Your task to perform on an android device: refresh tabs in the chrome app Image 0: 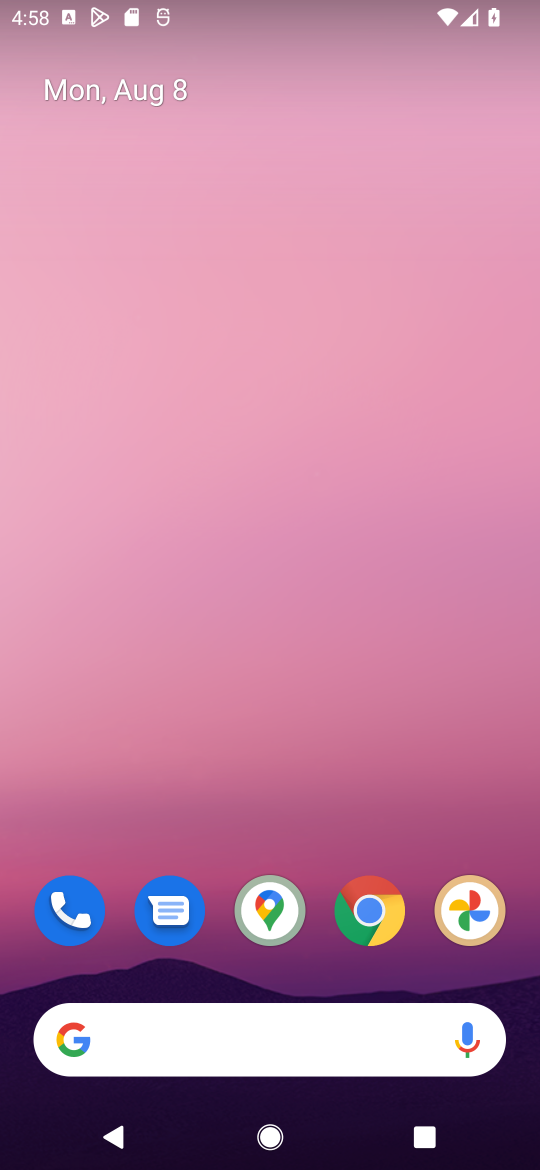
Step 0: click (380, 935)
Your task to perform on an android device: refresh tabs in the chrome app Image 1: 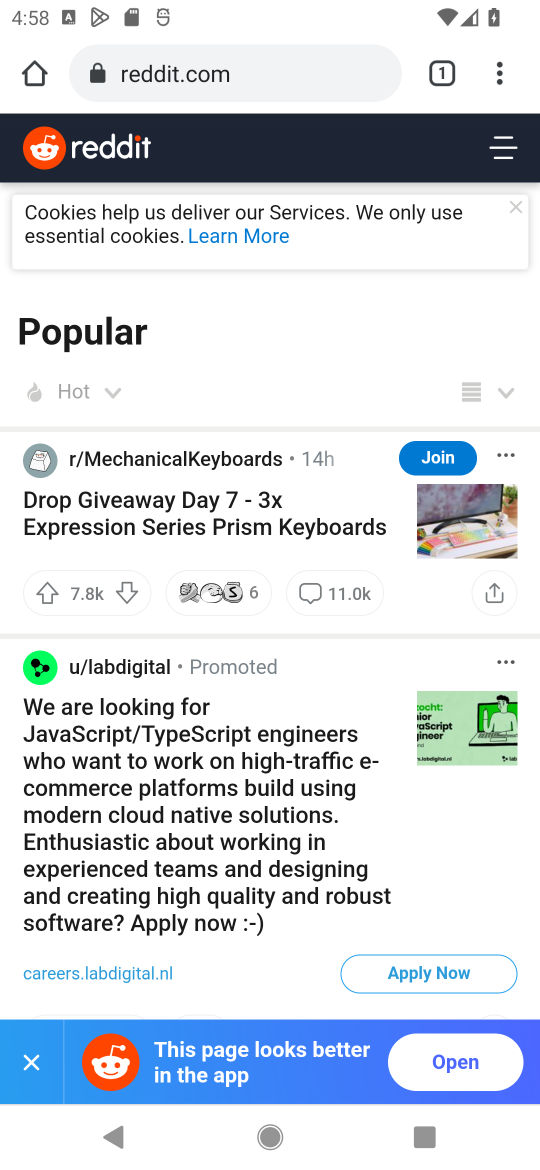
Step 1: click (503, 77)
Your task to perform on an android device: refresh tabs in the chrome app Image 2: 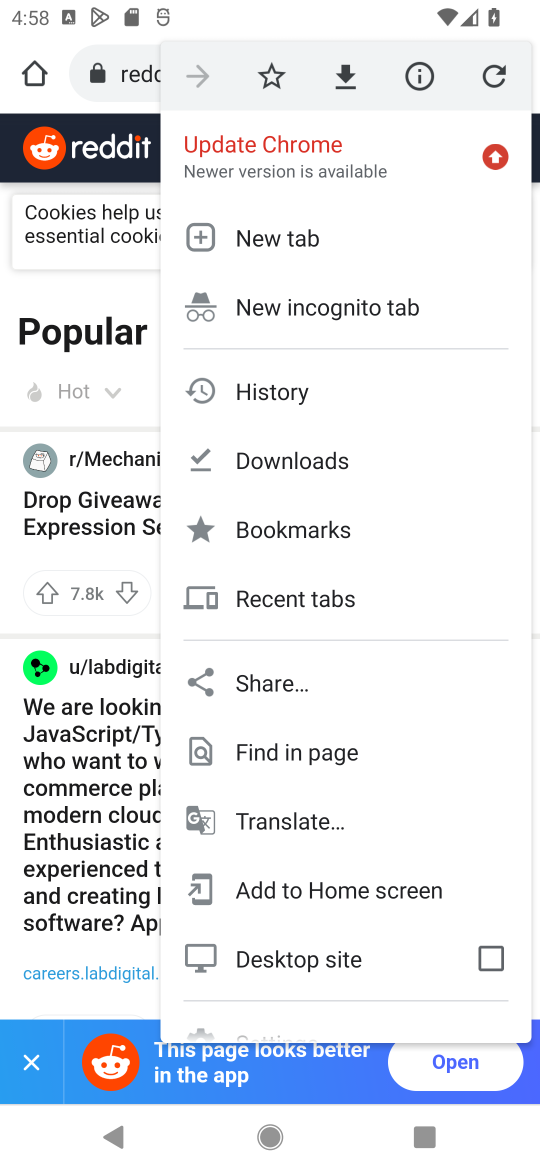
Step 2: click (496, 75)
Your task to perform on an android device: refresh tabs in the chrome app Image 3: 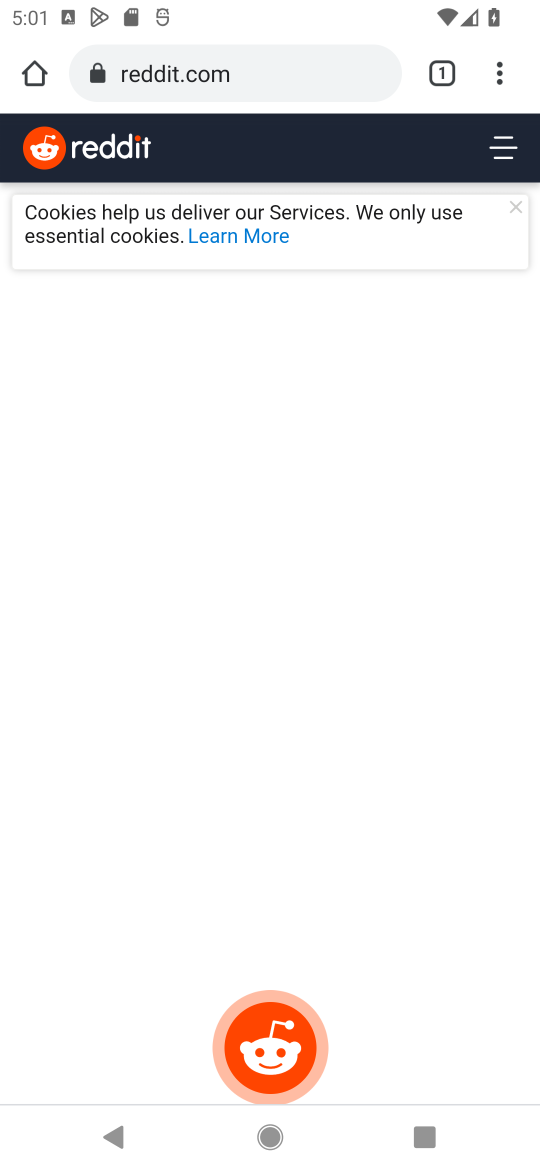
Step 3: task complete